Your task to perform on an android device: What's the weather today? Image 0: 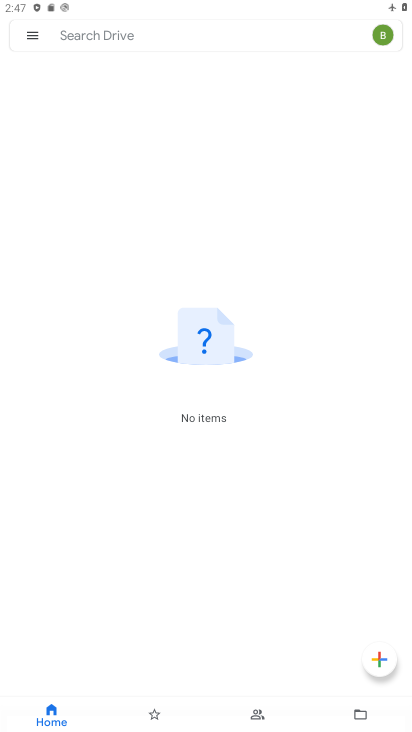
Step 0: click (411, 545)
Your task to perform on an android device: What's the weather today? Image 1: 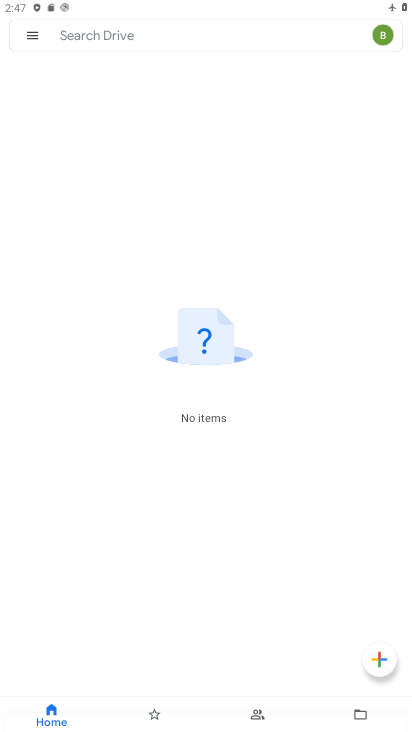
Step 1: press home button
Your task to perform on an android device: What's the weather today? Image 2: 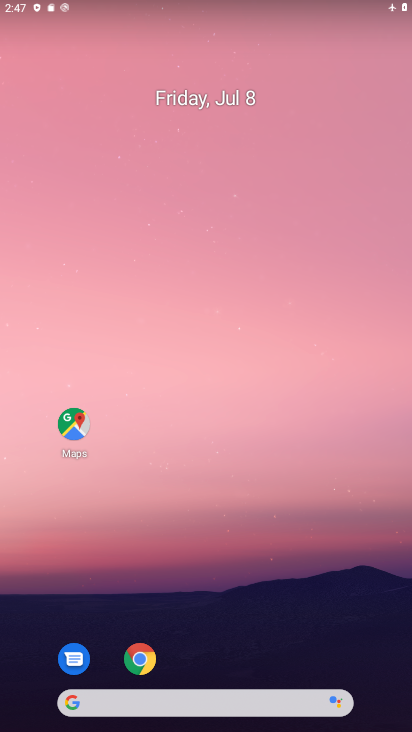
Step 2: drag from (239, 618) to (362, 124)
Your task to perform on an android device: What's the weather today? Image 3: 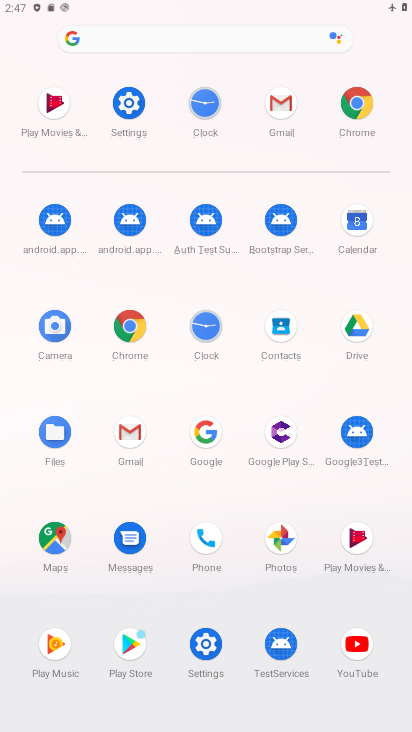
Step 3: click (352, 106)
Your task to perform on an android device: What's the weather today? Image 4: 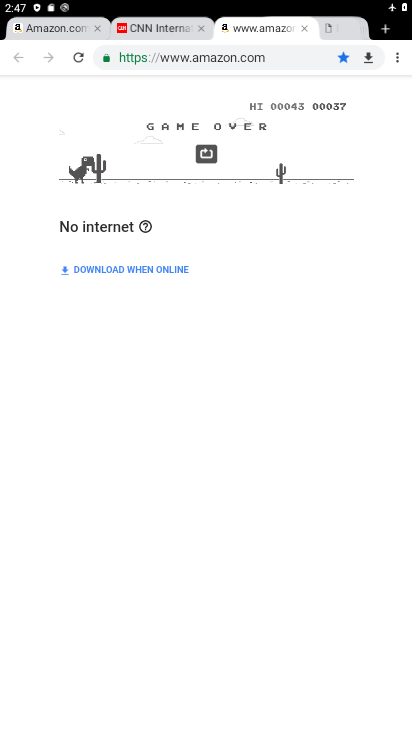
Step 4: task complete